Your task to perform on an android device: Go to Maps Image 0: 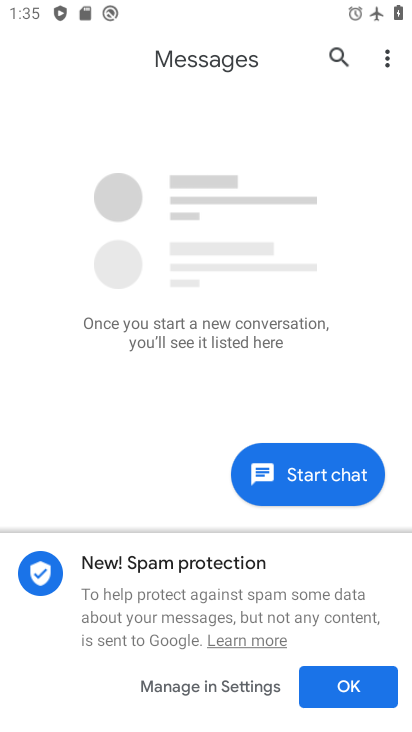
Step 0: press home button
Your task to perform on an android device: Go to Maps Image 1: 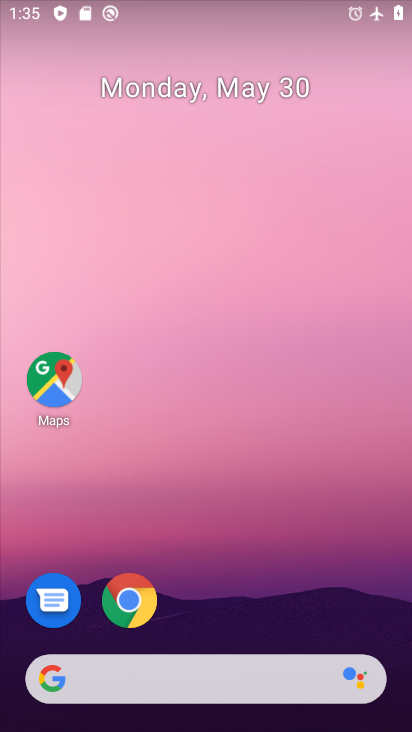
Step 1: drag from (225, 647) to (297, 32)
Your task to perform on an android device: Go to Maps Image 2: 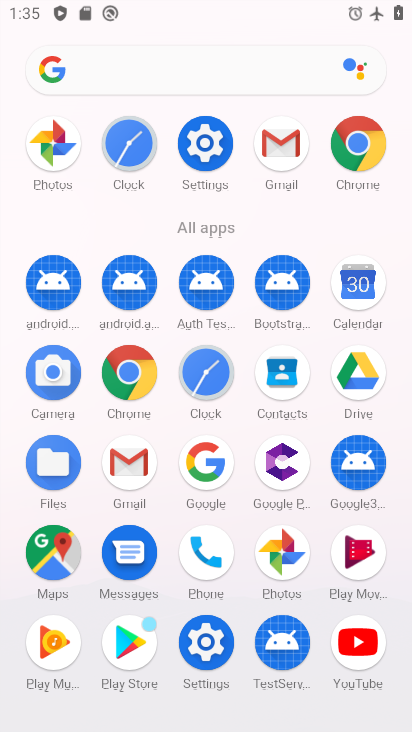
Step 2: click (53, 569)
Your task to perform on an android device: Go to Maps Image 3: 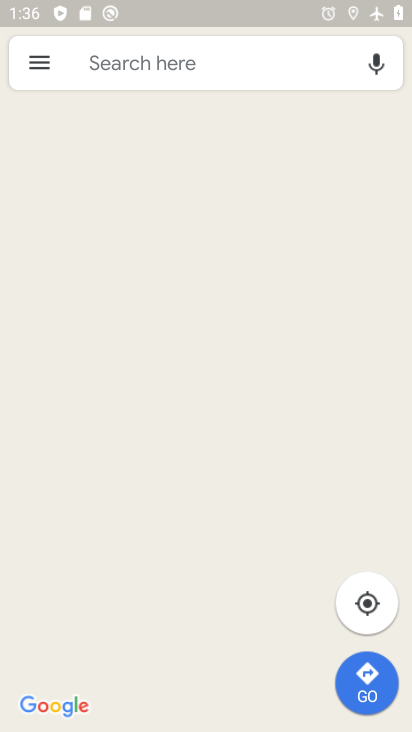
Step 3: task complete